Your task to perform on an android device: install app "Yahoo Mail" Image 0: 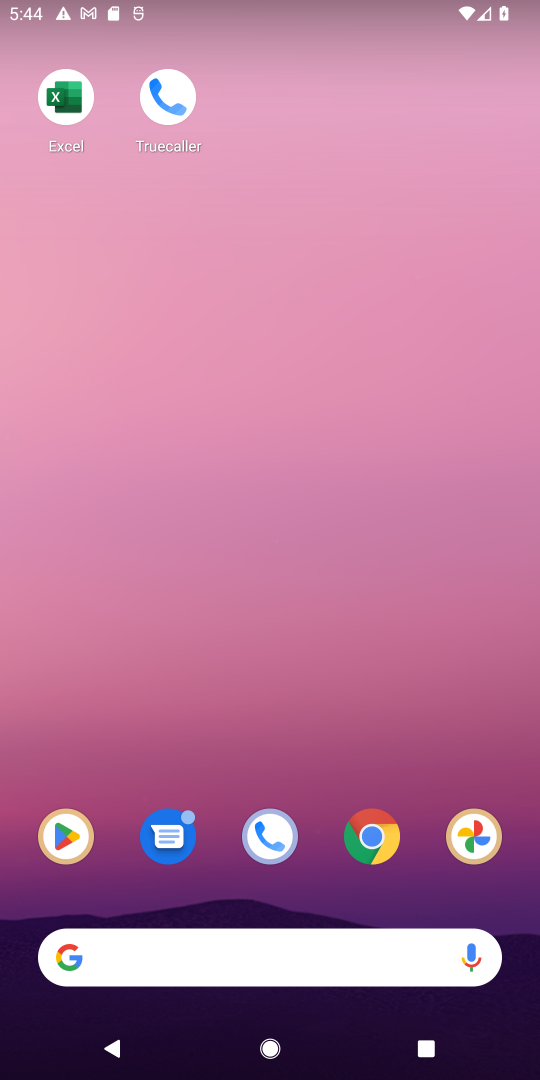
Step 0: click (75, 829)
Your task to perform on an android device: install app "Yahoo Mail" Image 1: 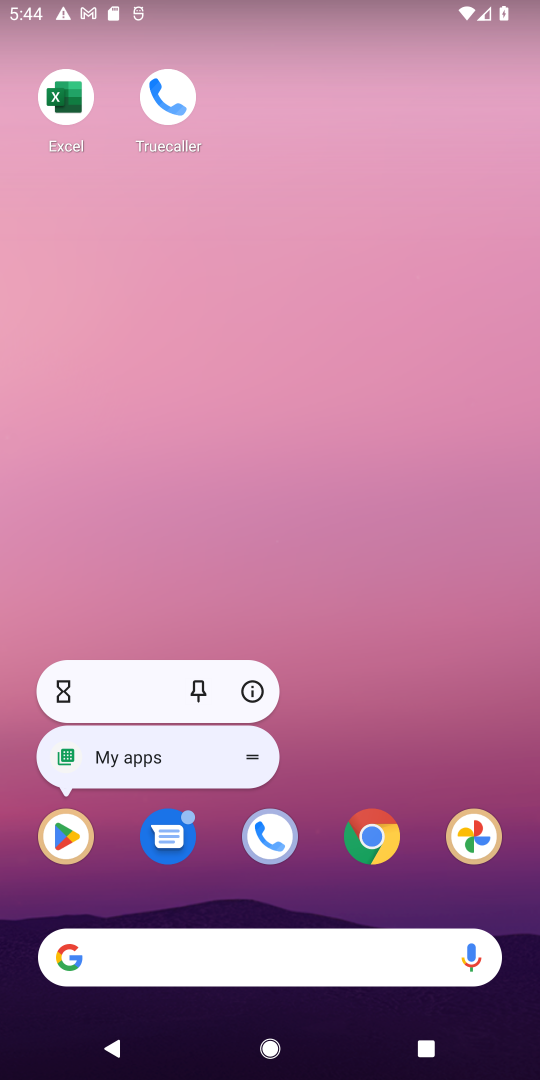
Step 1: click (61, 844)
Your task to perform on an android device: install app "Yahoo Mail" Image 2: 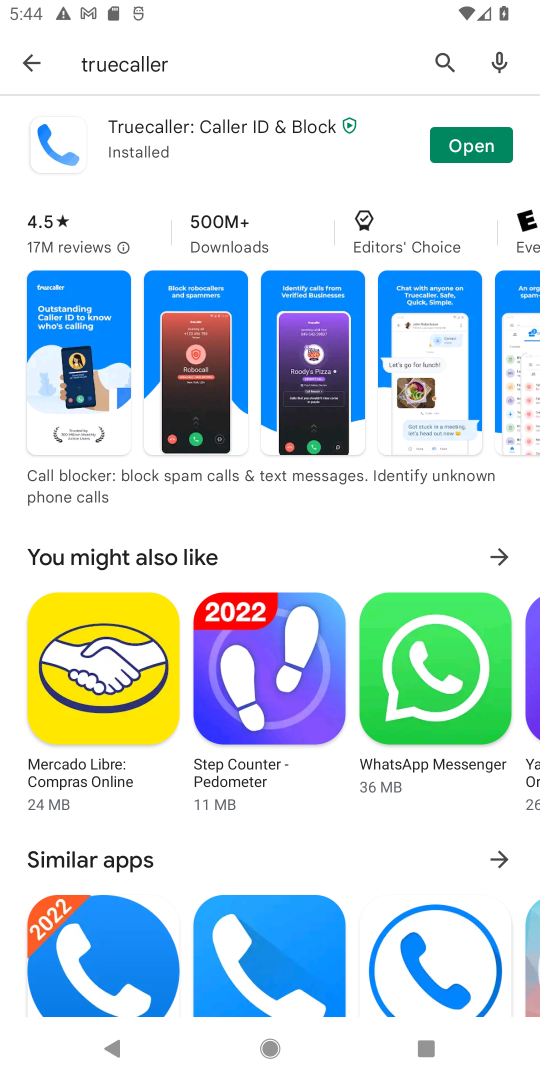
Step 2: click (445, 52)
Your task to perform on an android device: install app "Yahoo Mail" Image 3: 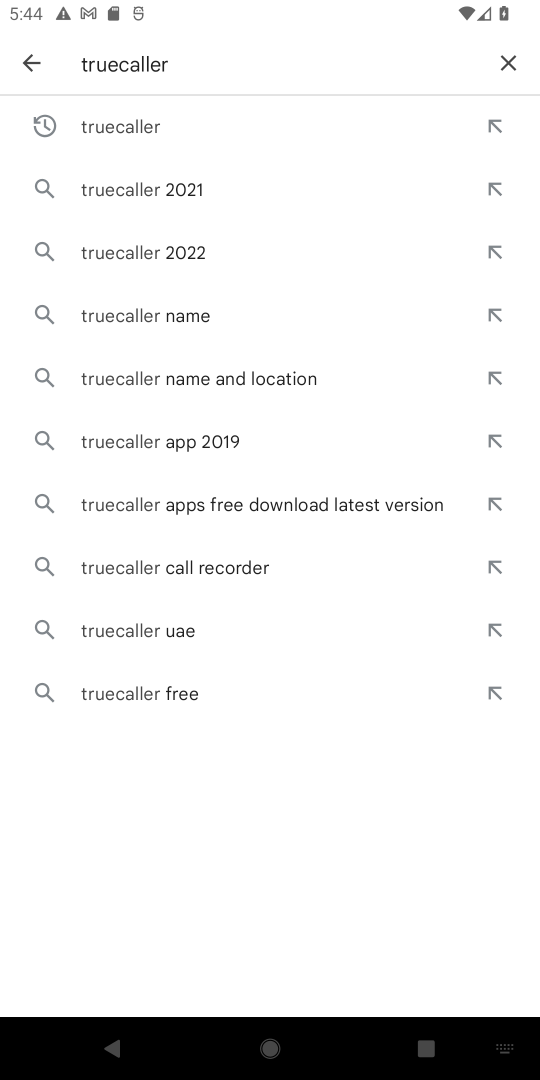
Step 3: click (506, 58)
Your task to perform on an android device: install app "Yahoo Mail" Image 4: 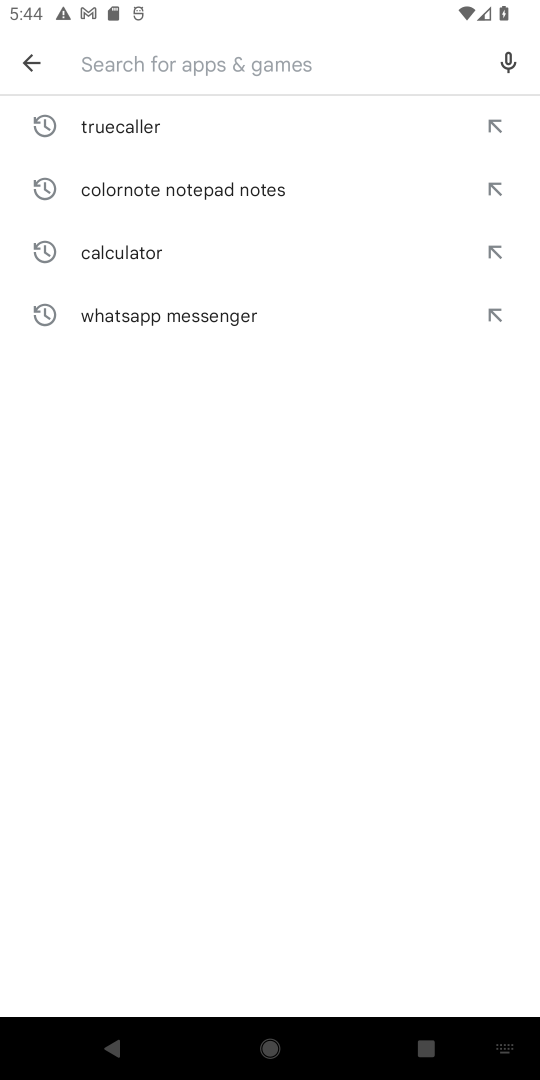
Step 4: type "Yahoo Mail"
Your task to perform on an android device: install app "Yahoo Mail" Image 5: 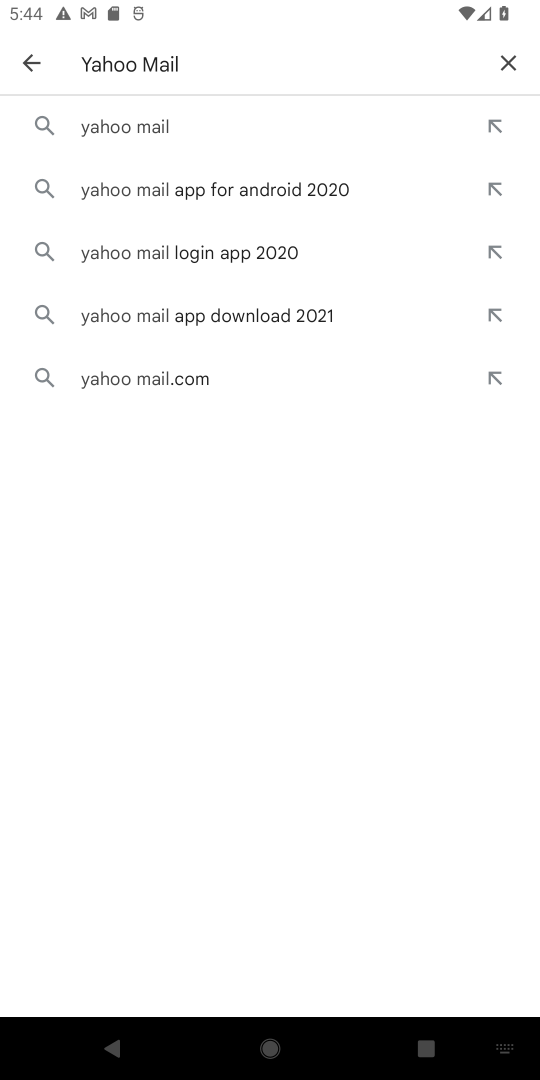
Step 5: click (147, 127)
Your task to perform on an android device: install app "Yahoo Mail" Image 6: 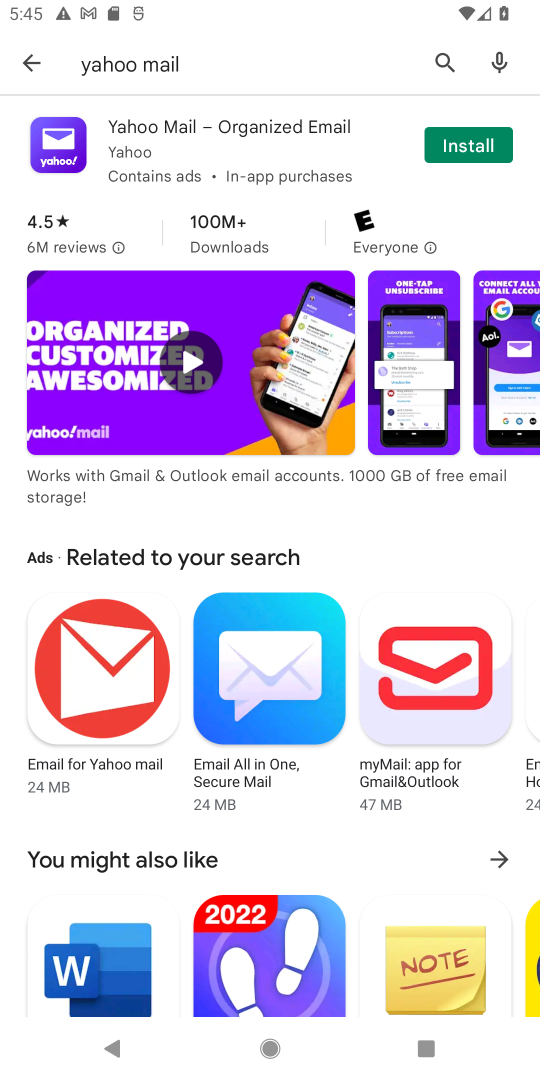
Step 6: click (465, 147)
Your task to perform on an android device: install app "Yahoo Mail" Image 7: 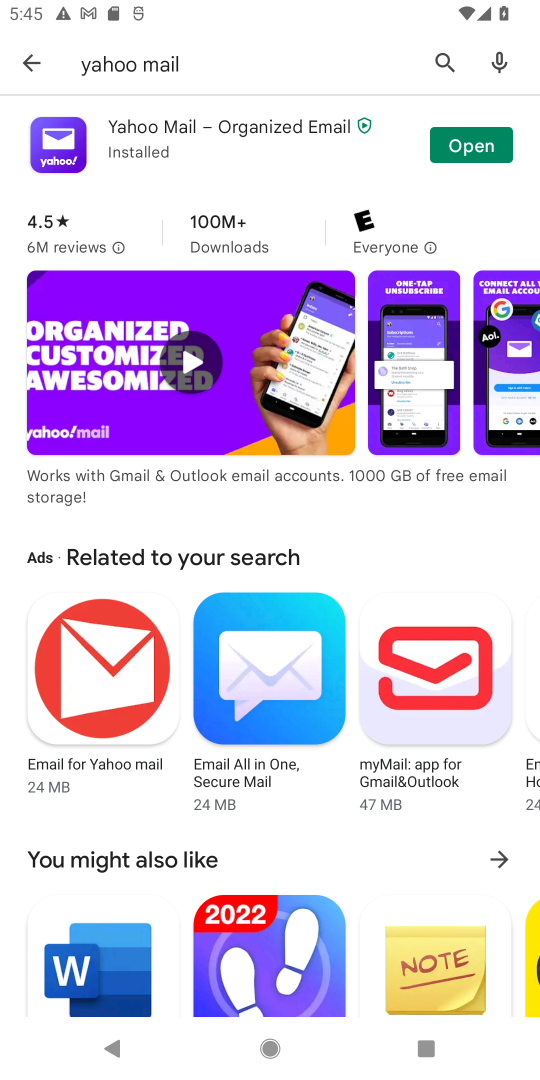
Step 7: task complete